Your task to perform on an android device: Go to settings Image 0: 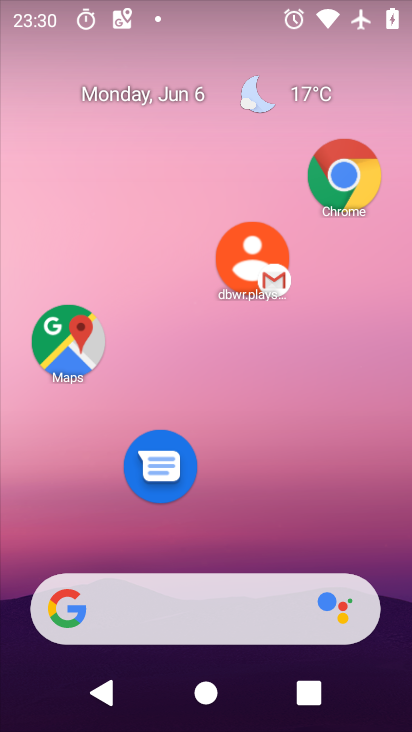
Step 0: drag from (204, 539) to (250, 142)
Your task to perform on an android device: Go to settings Image 1: 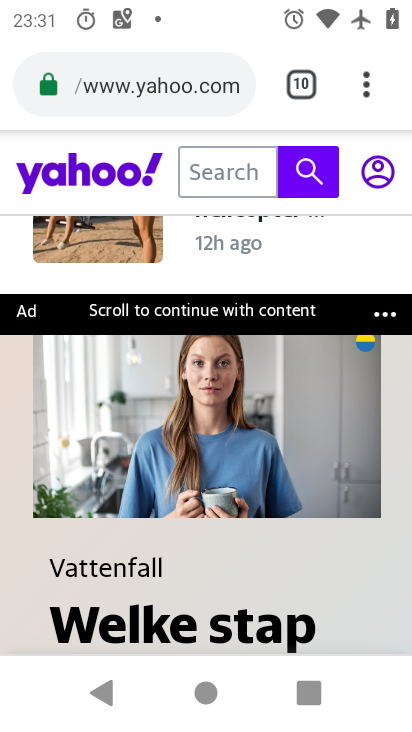
Step 1: press home button
Your task to perform on an android device: Go to settings Image 2: 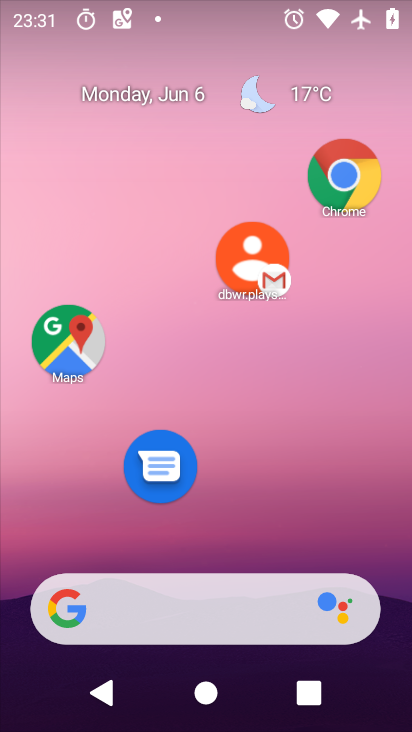
Step 2: drag from (227, 475) to (218, 224)
Your task to perform on an android device: Go to settings Image 3: 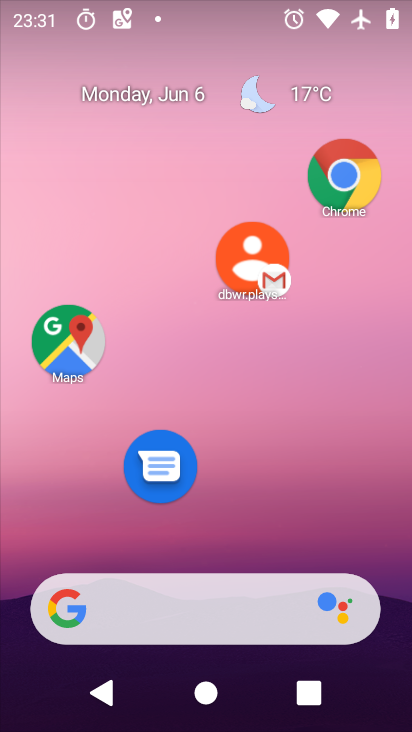
Step 3: drag from (171, 548) to (227, 140)
Your task to perform on an android device: Go to settings Image 4: 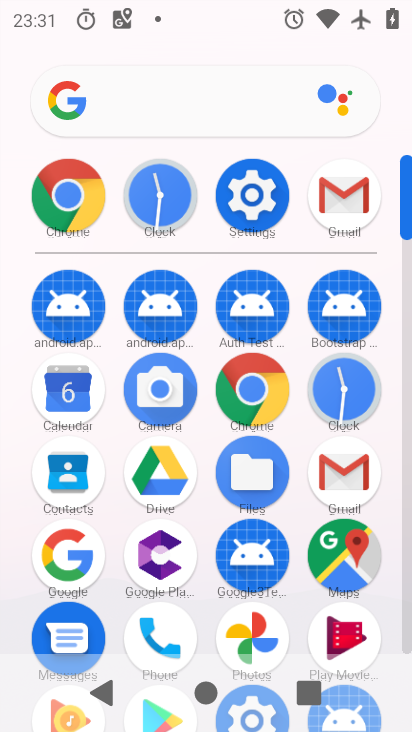
Step 4: click (281, 180)
Your task to perform on an android device: Go to settings Image 5: 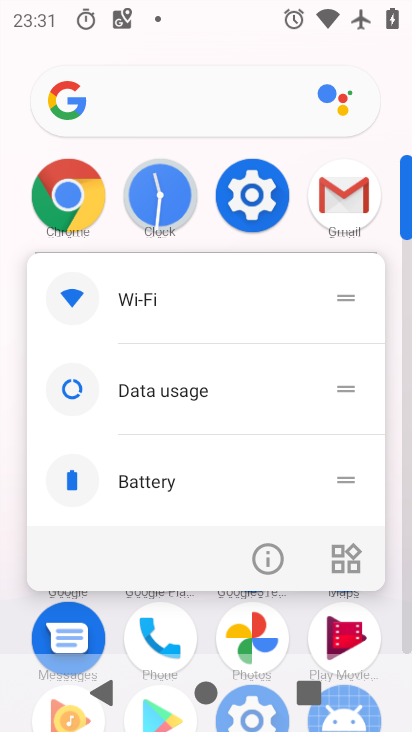
Step 5: click (274, 562)
Your task to perform on an android device: Go to settings Image 6: 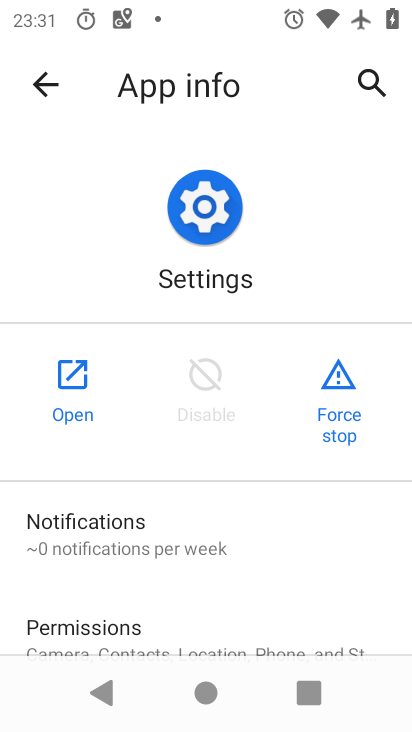
Step 6: click (78, 348)
Your task to perform on an android device: Go to settings Image 7: 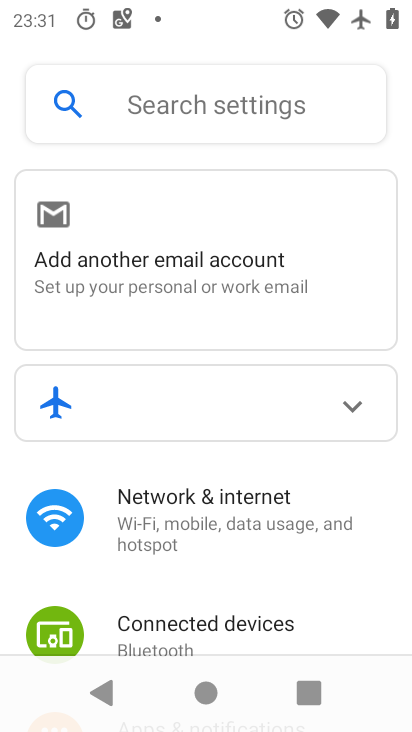
Step 7: task complete